Your task to perform on an android device: open app "Viber Messenger" (install if not already installed) Image 0: 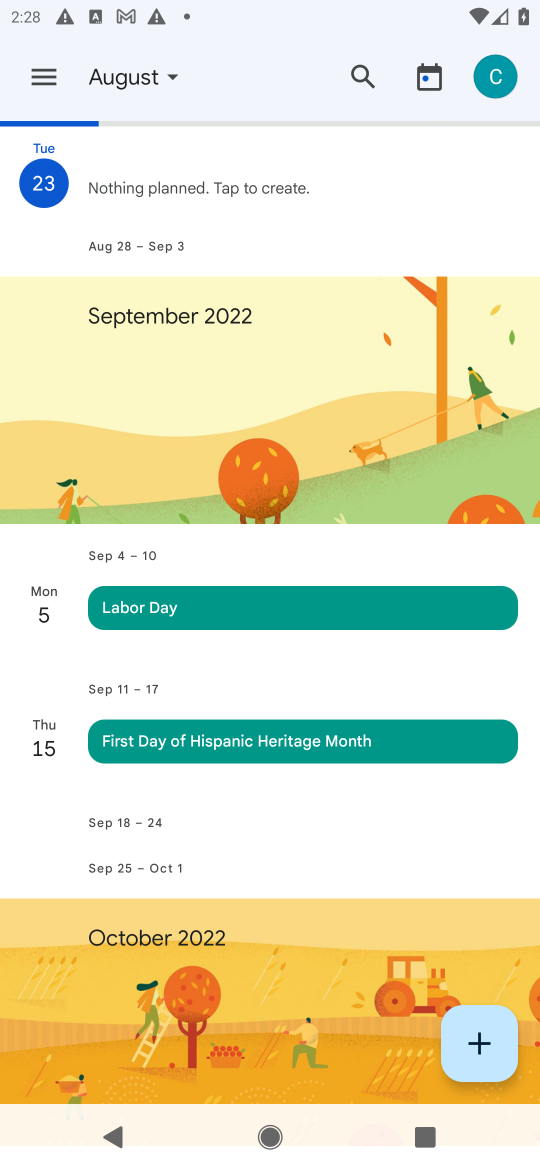
Step 0: press home button
Your task to perform on an android device: open app "Viber Messenger" (install if not already installed) Image 1: 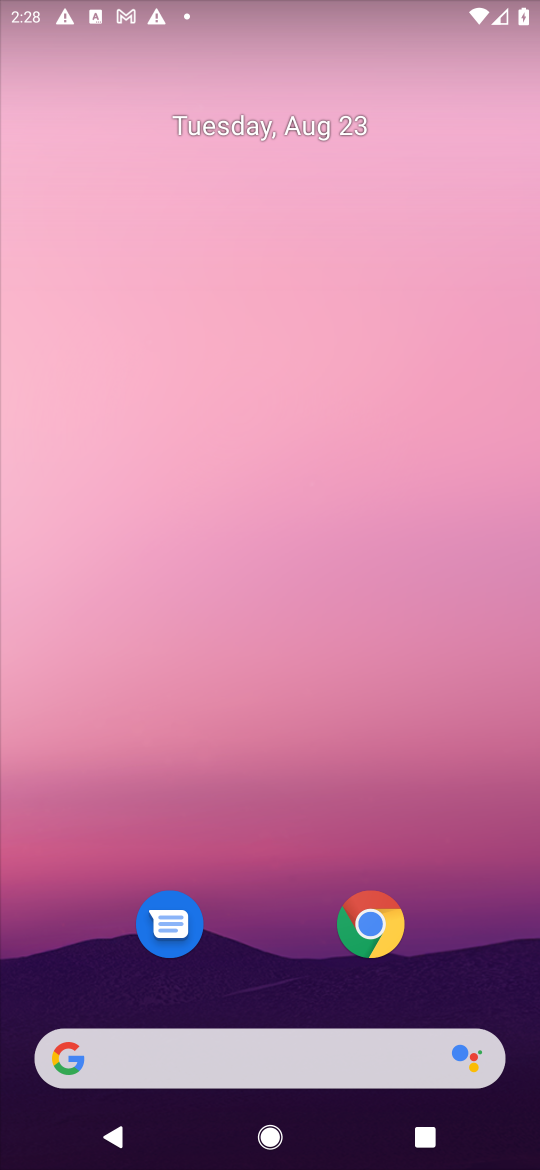
Step 1: drag from (482, 991) to (475, 172)
Your task to perform on an android device: open app "Viber Messenger" (install if not already installed) Image 2: 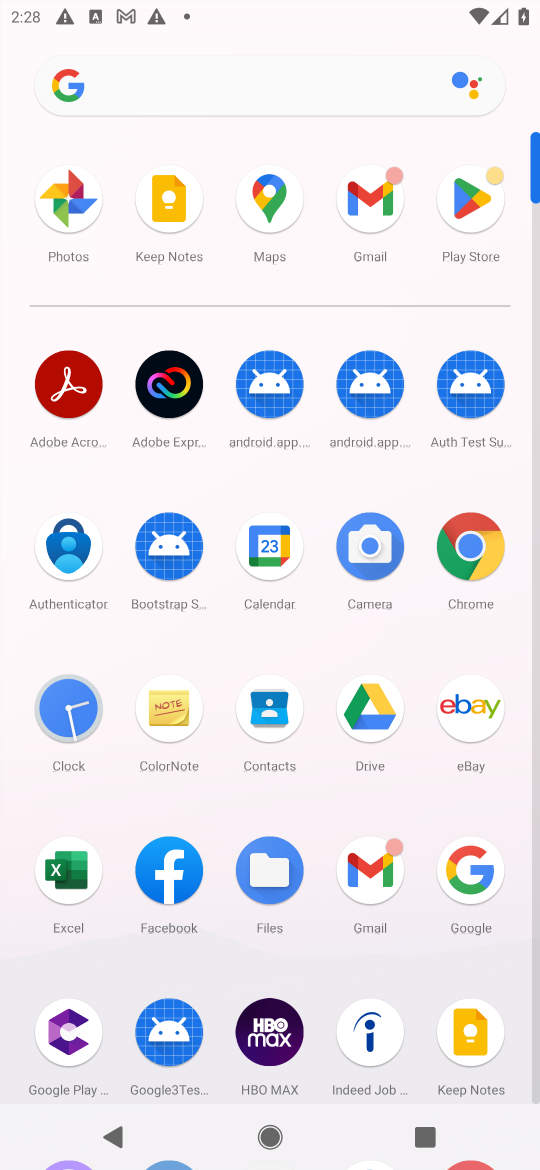
Step 2: click (474, 197)
Your task to perform on an android device: open app "Viber Messenger" (install if not already installed) Image 3: 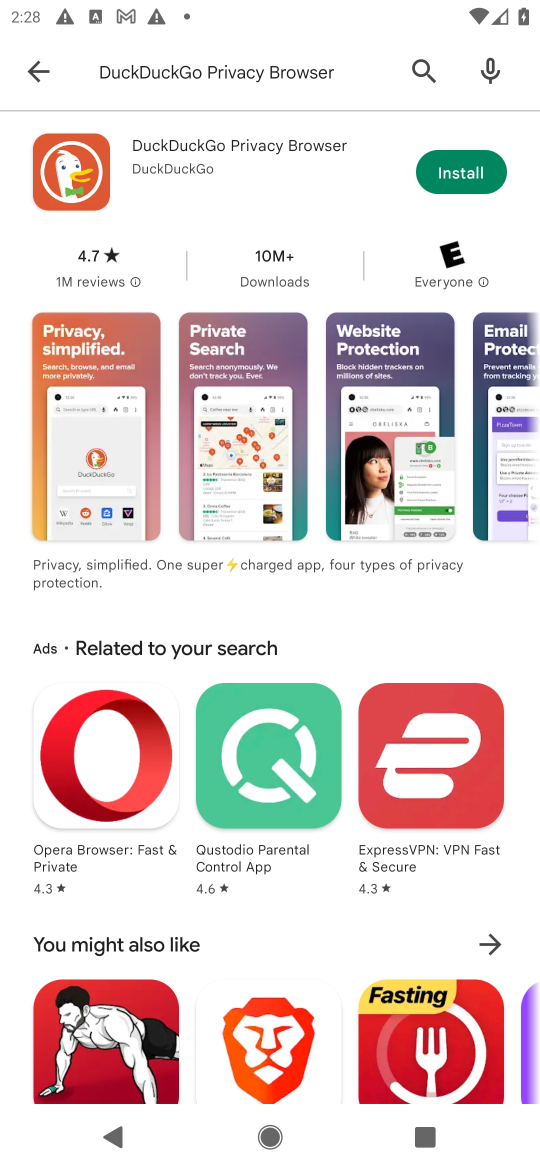
Step 3: press back button
Your task to perform on an android device: open app "Viber Messenger" (install if not already installed) Image 4: 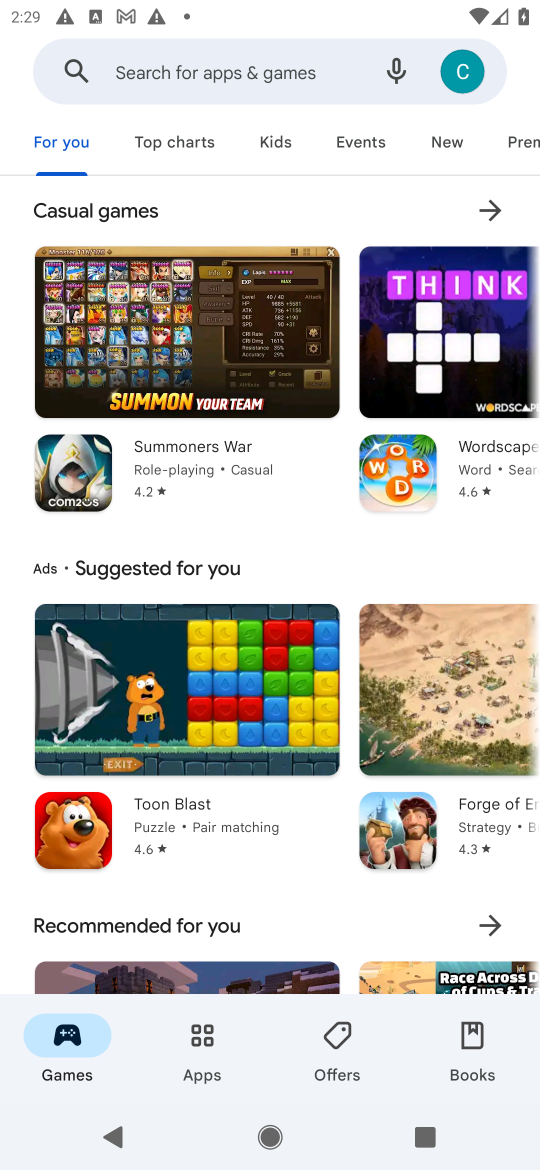
Step 4: click (265, 76)
Your task to perform on an android device: open app "Viber Messenger" (install if not already installed) Image 5: 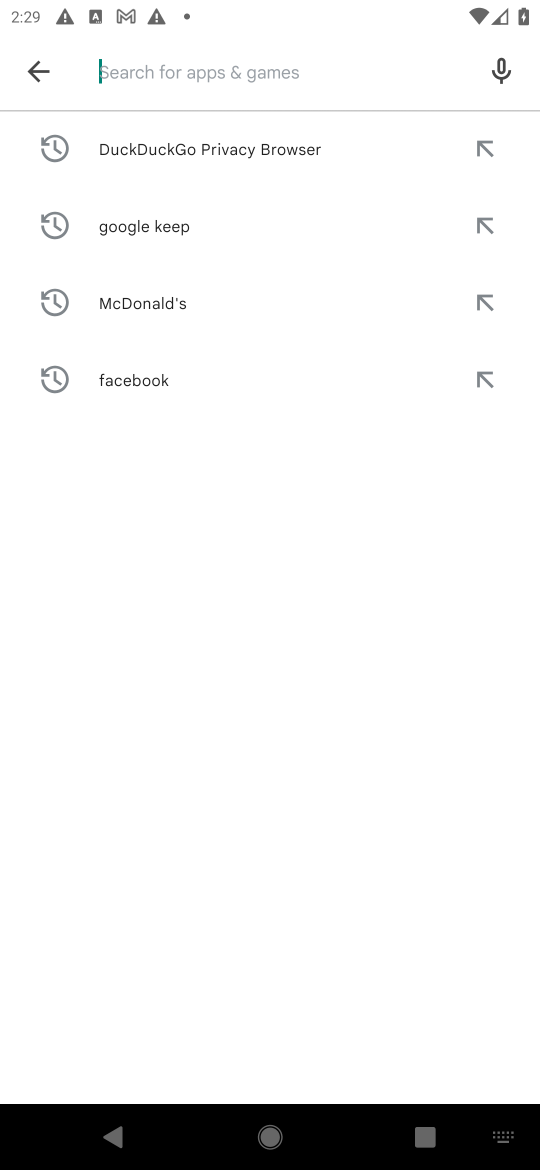
Step 5: type "Viber Messenger"
Your task to perform on an android device: open app "Viber Messenger" (install if not already installed) Image 6: 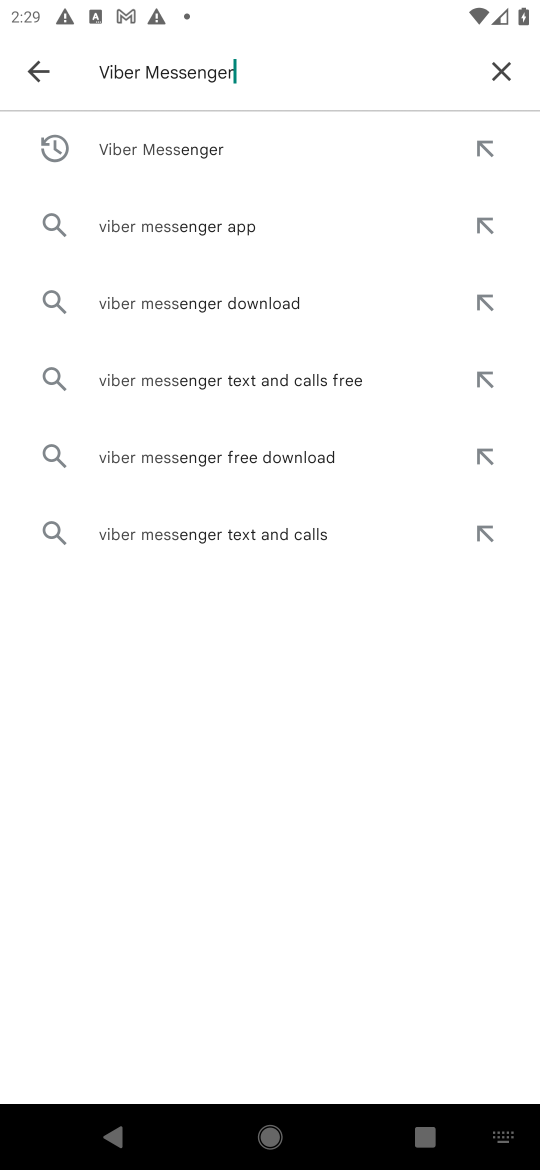
Step 6: press enter
Your task to perform on an android device: open app "Viber Messenger" (install if not already installed) Image 7: 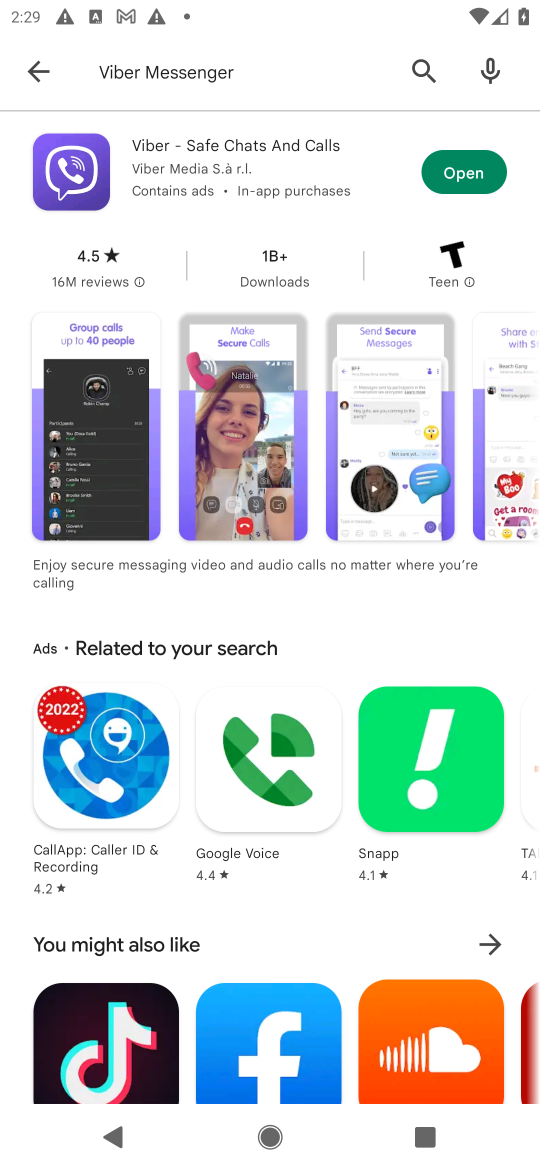
Step 7: click (455, 172)
Your task to perform on an android device: open app "Viber Messenger" (install if not already installed) Image 8: 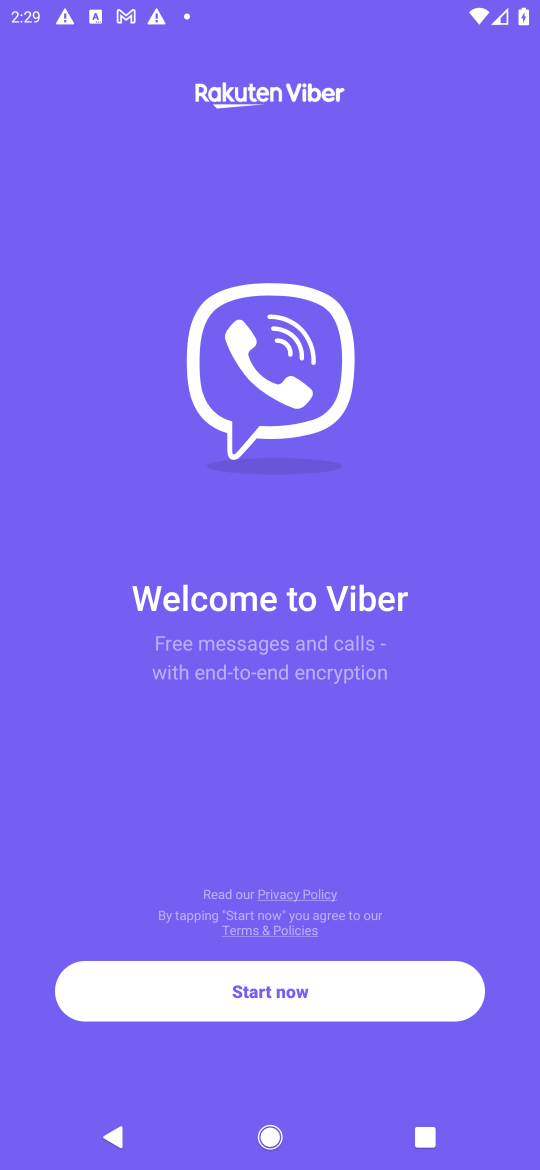
Step 8: task complete